Your task to perform on an android device: clear all cookies in the chrome app Image 0: 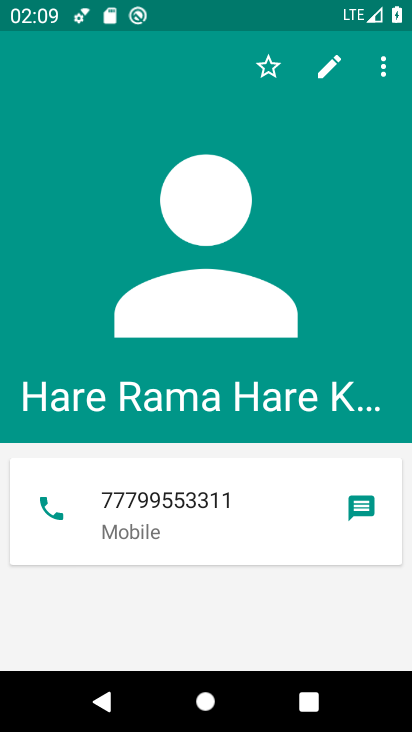
Step 0: press home button
Your task to perform on an android device: clear all cookies in the chrome app Image 1: 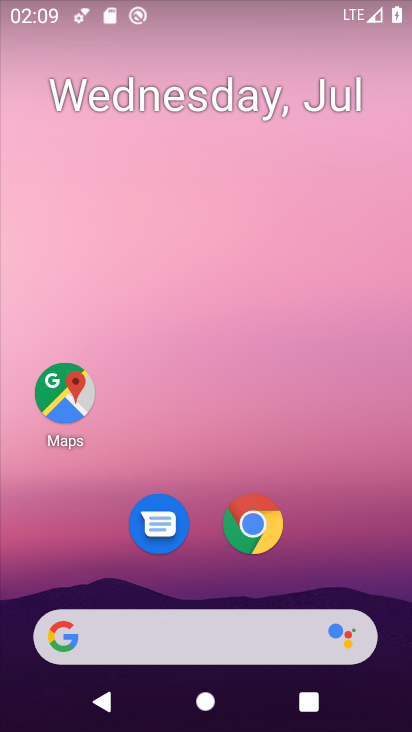
Step 1: click (269, 521)
Your task to perform on an android device: clear all cookies in the chrome app Image 2: 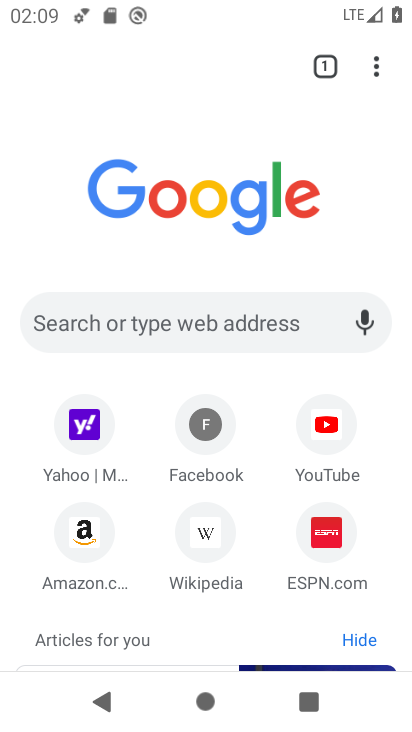
Step 2: click (373, 71)
Your task to perform on an android device: clear all cookies in the chrome app Image 3: 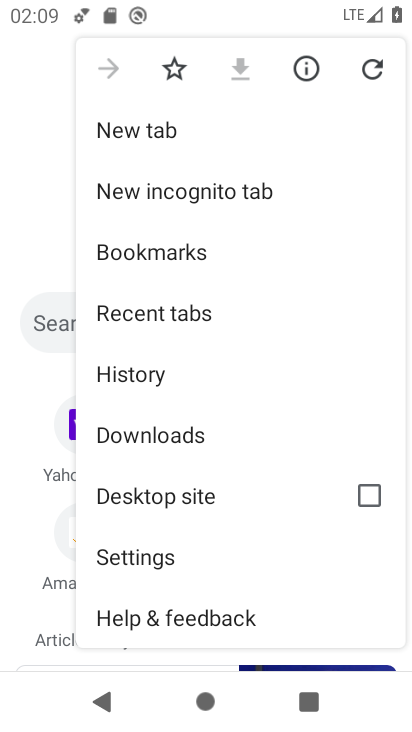
Step 3: click (154, 375)
Your task to perform on an android device: clear all cookies in the chrome app Image 4: 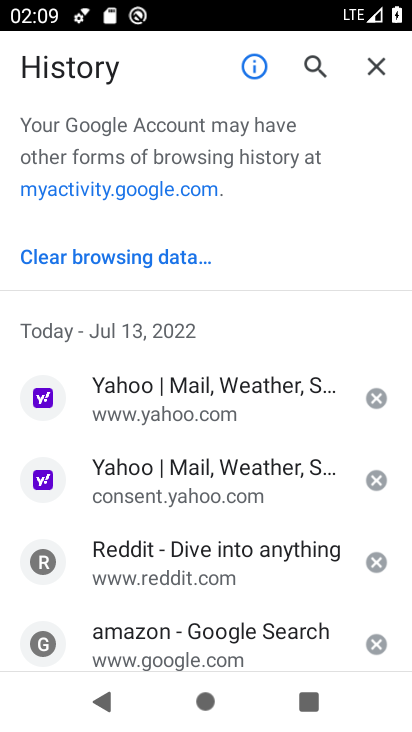
Step 4: click (144, 255)
Your task to perform on an android device: clear all cookies in the chrome app Image 5: 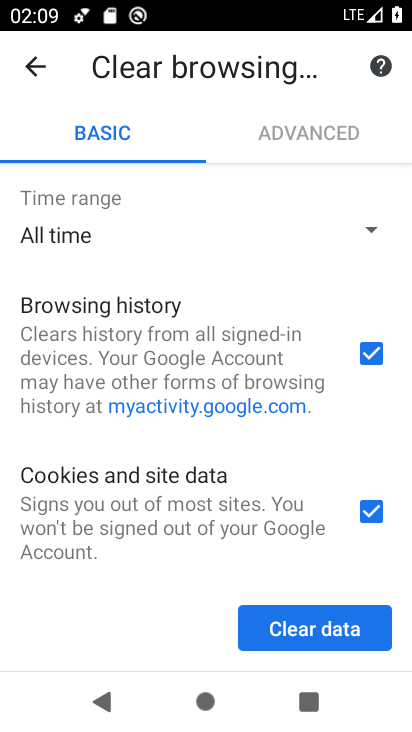
Step 5: click (369, 358)
Your task to perform on an android device: clear all cookies in the chrome app Image 6: 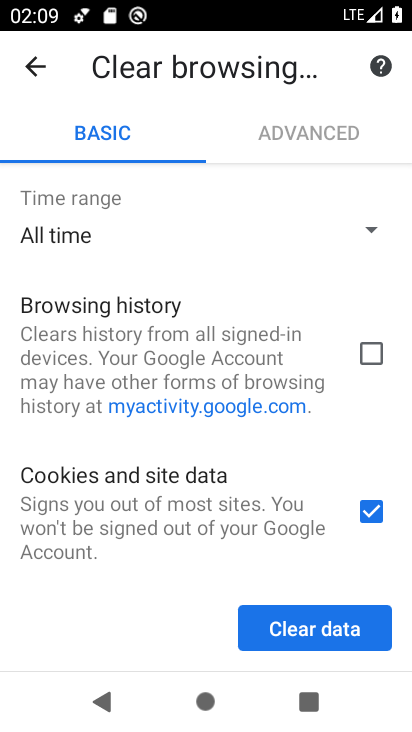
Step 6: drag from (254, 449) to (290, 234)
Your task to perform on an android device: clear all cookies in the chrome app Image 7: 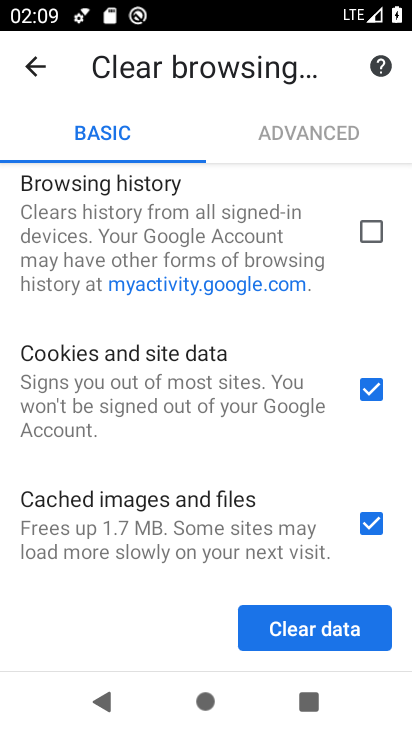
Step 7: click (371, 523)
Your task to perform on an android device: clear all cookies in the chrome app Image 8: 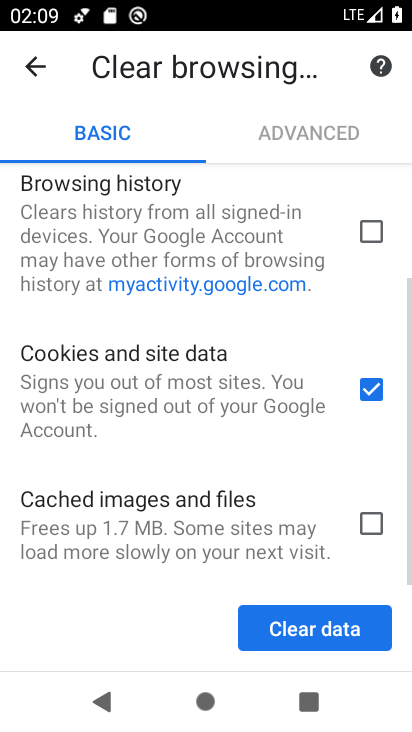
Step 8: click (359, 629)
Your task to perform on an android device: clear all cookies in the chrome app Image 9: 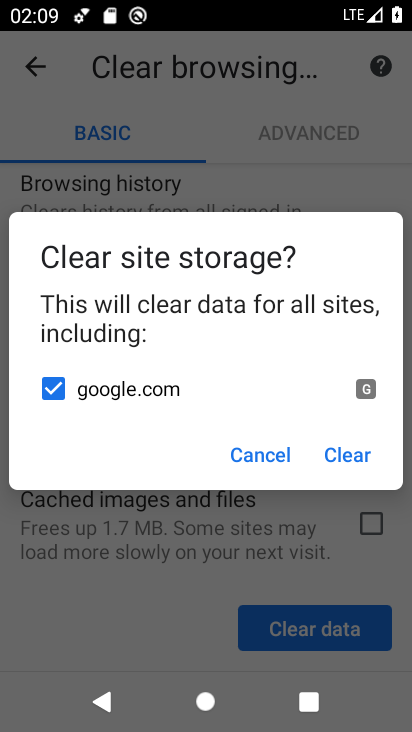
Step 9: click (367, 457)
Your task to perform on an android device: clear all cookies in the chrome app Image 10: 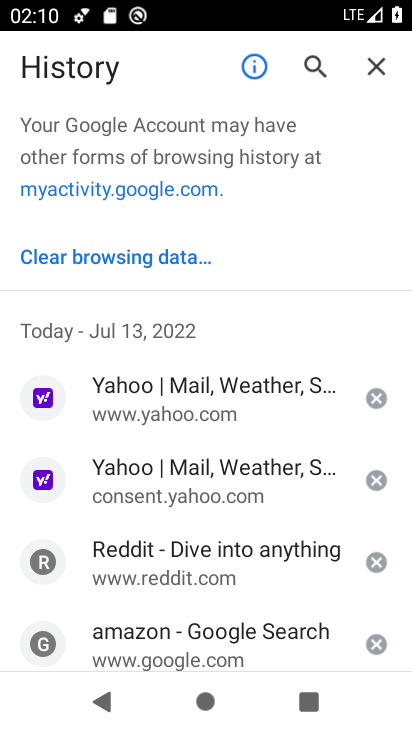
Step 10: task complete